Your task to perform on an android device: Go to CNN.com Image 0: 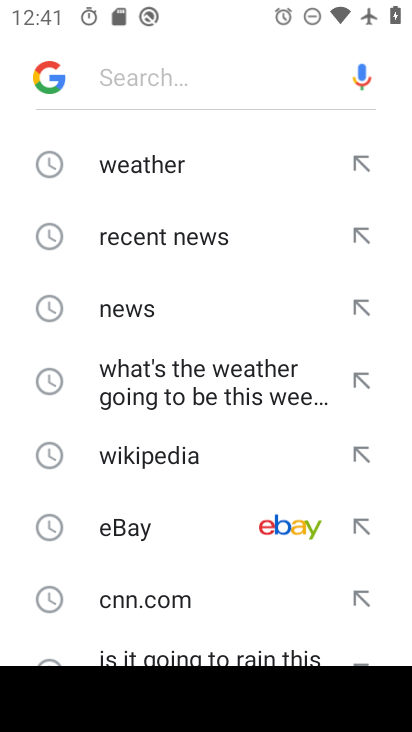
Step 0: click (213, 600)
Your task to perform on an android device: Go to CNN.com Image 1: 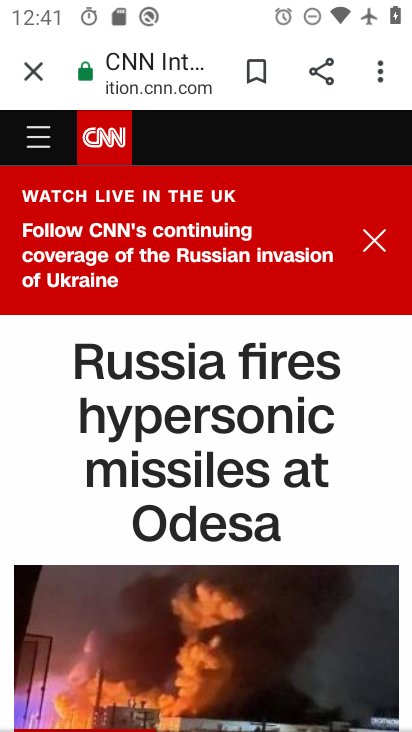
Step 1: task complete